Your task to perform on an android device: change the clock display to show seconds Image 0: 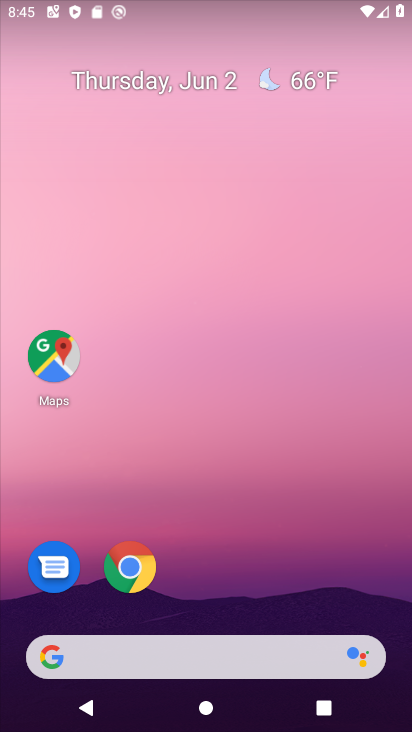
Step 0: drag from (197, 607) to (220, 158)
Your task to perform on an android device: change the clock display to show seconds Image 1: 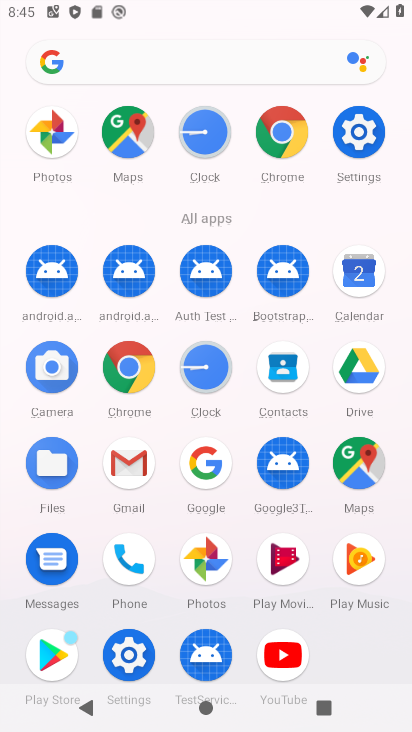
Step 1: click (208, 374)
Your task to perform on an android device: change the clock display to show seconds Image 2: 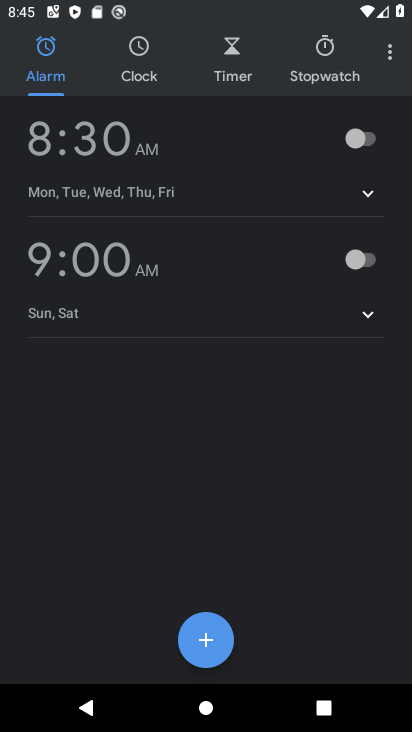
Step 2: click (387, 64)
Your task to perform on an android device: change the clock display to show seconds Image 3: 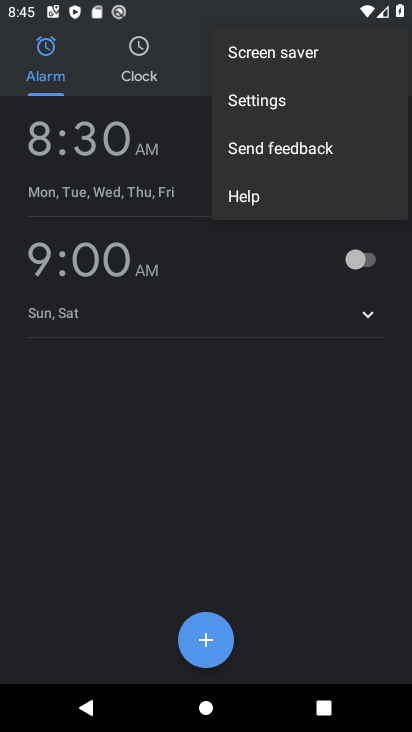
Step 3: click (267, 101)
Your task to perform on an android device: change the clock display to show seconds Image 4: 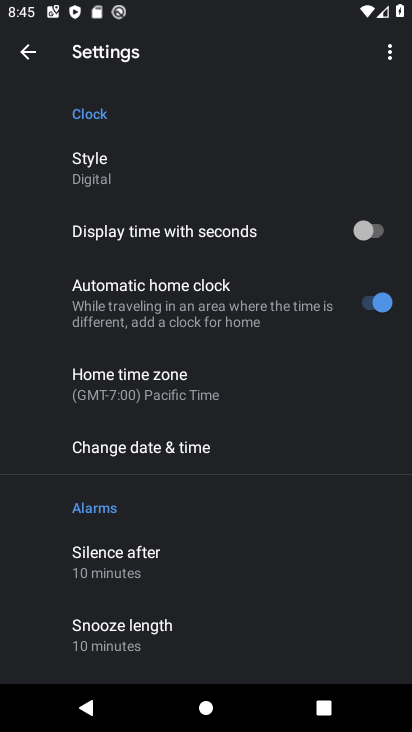
Step 4: click (114, 181)
Your task to perform on an android device: change the clock display to show seconds Image 5: 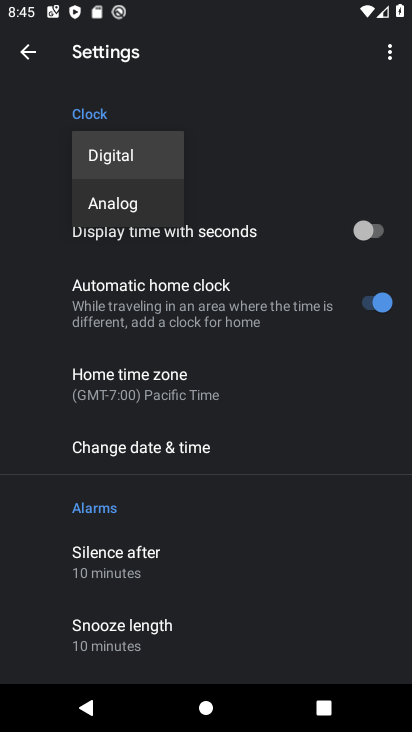
Step 5: click (128, 200)
Your task to perform on an android device: change the clock display to show seconds Image 6: 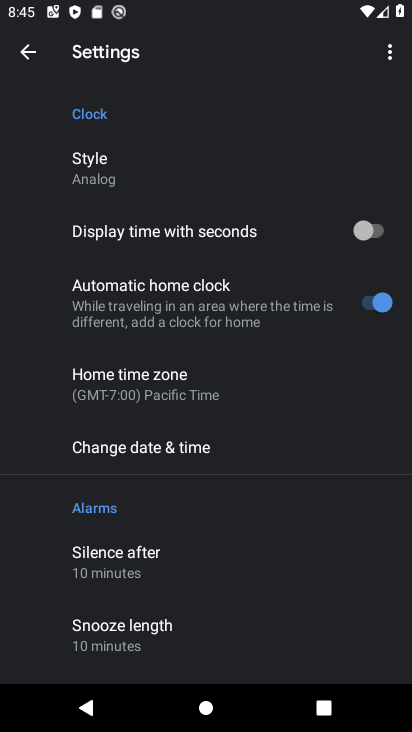
Step 6: click (380, 238)
Your task to perform on an android device: change the clock display to show seconds Image 7: 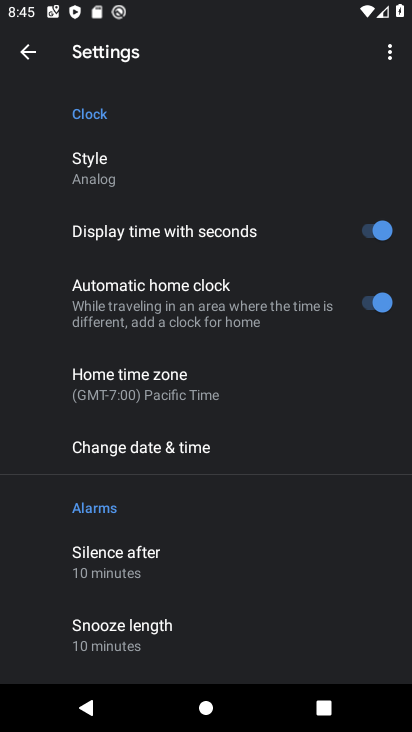
Step 7: task complete